Your task to perform on an android device: make emails show in primary in the gmail app Image 0: 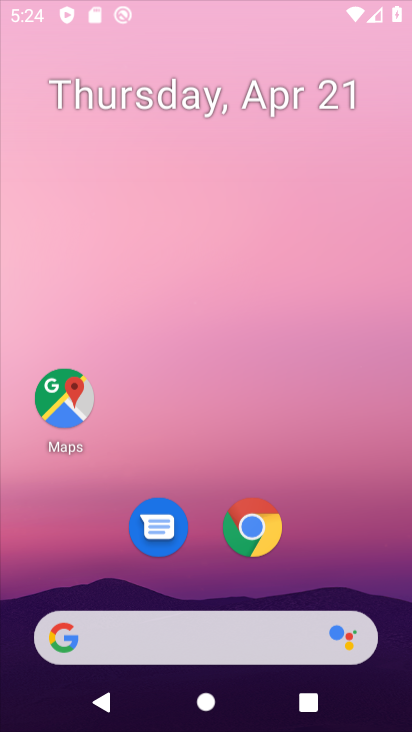
Step 0: click (294, 74)
Your task to perform on an android device: make emails show in primary in the gmail app Image 1: 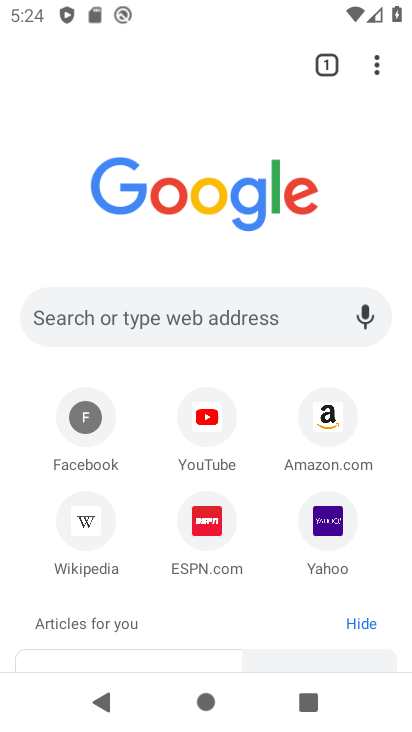
Step 1: press back button
Your task to perform on an android device: make emails show in primary in the gmail app Image 2: 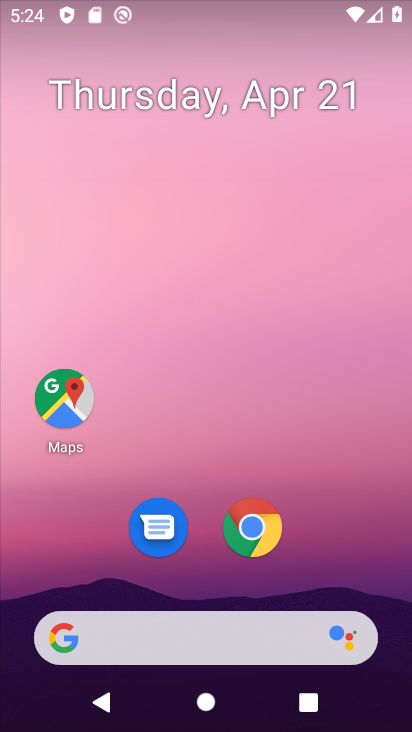
Step 2: drag from (198, 572) to (278, 89)
Your task to perform on an android device: make emails show in primary in the gmail app Image 3: 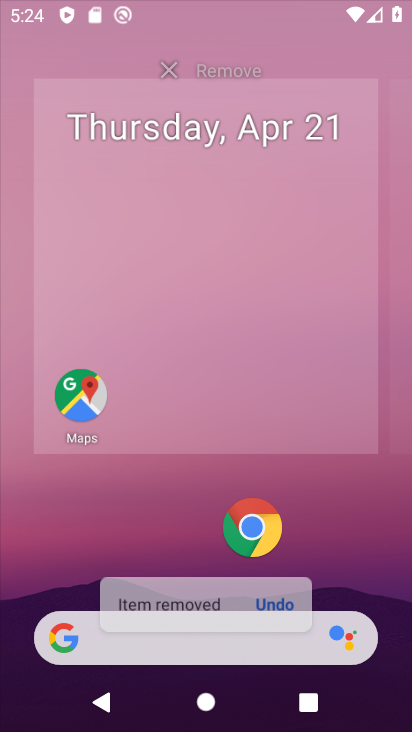
Step 3: click (104, 546)
Your task to perform on an android device: make emails show in primary in the gmail app Image 4: 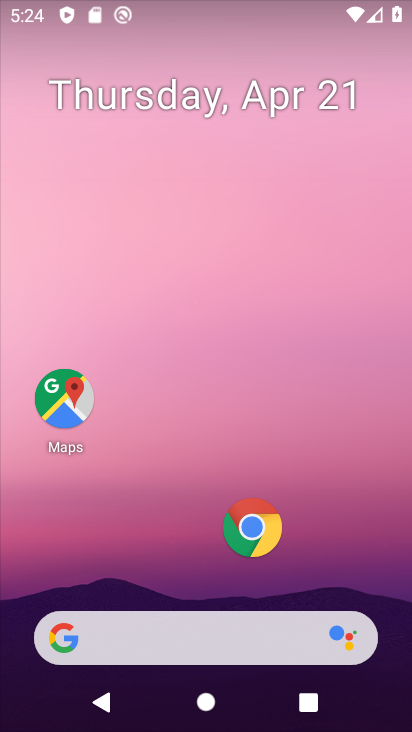
Step 4: drag from (175, 351) to (206, 104)
Your task to perform on an android device: make emails show in primary in the gmail app Image 5: 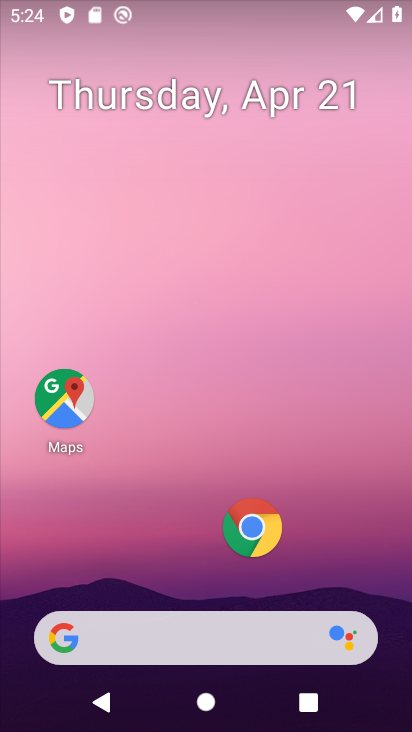
Step 5: drag from (190, 397) to (229, 134)
Your task to perform on an android device: make emails show in primary in the gmail app Image 6: 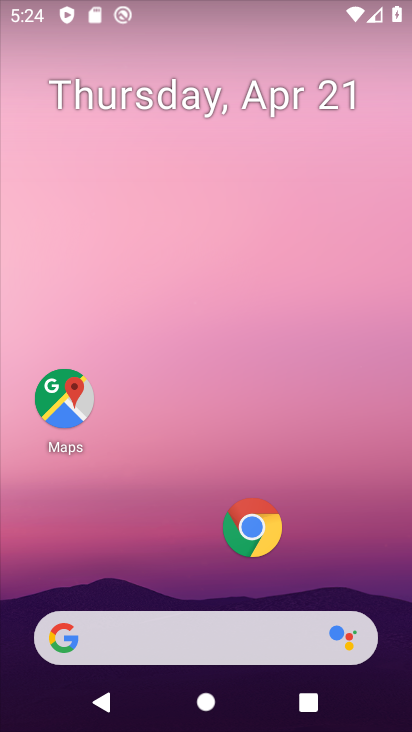
Step 6: drag from (130, 619) to (270, 26)
Your task to perform on an android device: make emails show in primary in the gmail app Image 7: 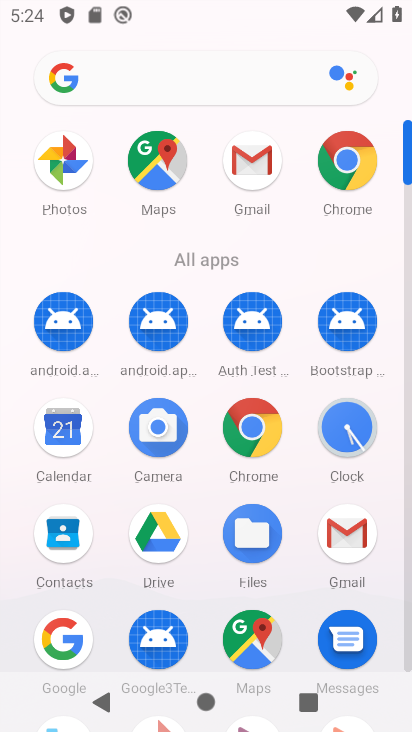
Step 7: click (259, 155)
Your task to perform on an android device: make emails show in primary in the gmail app Image 8: 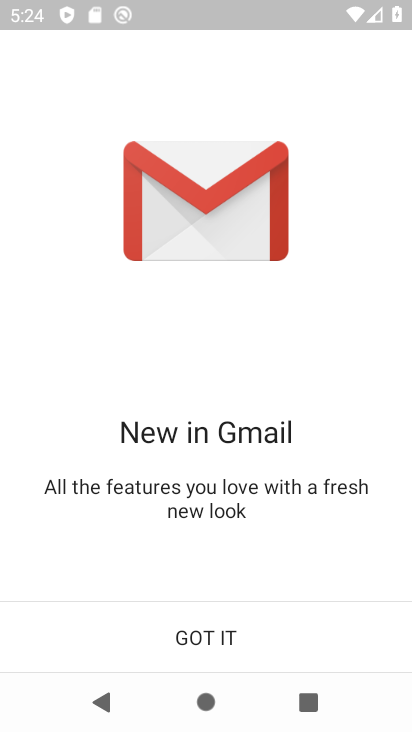
Step 8: click (187, 628)
Your task to perform on an android device: make emails show in primary in the gmail app Image 9: 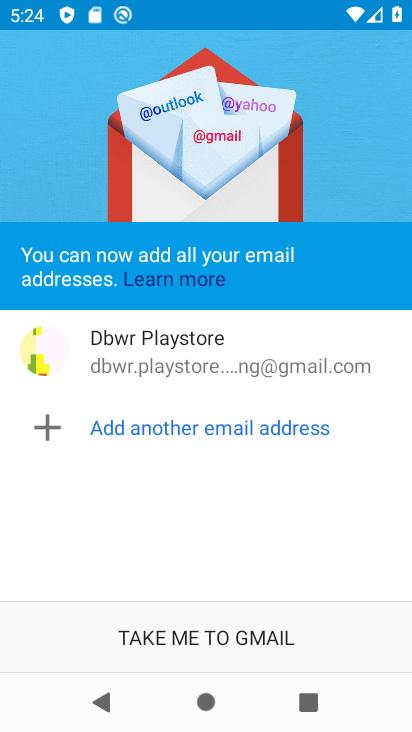
Step 9: click (177, 631)
Your task to perform on an android device: make emails show in primary in the gmail app Image 10: 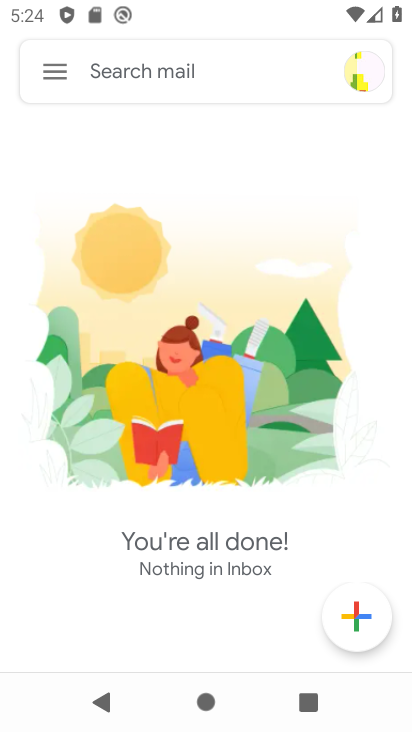
Step 10: click (57, 68)
Your task to perform on an android device: make emails show in primary in the gmail app Image 11: 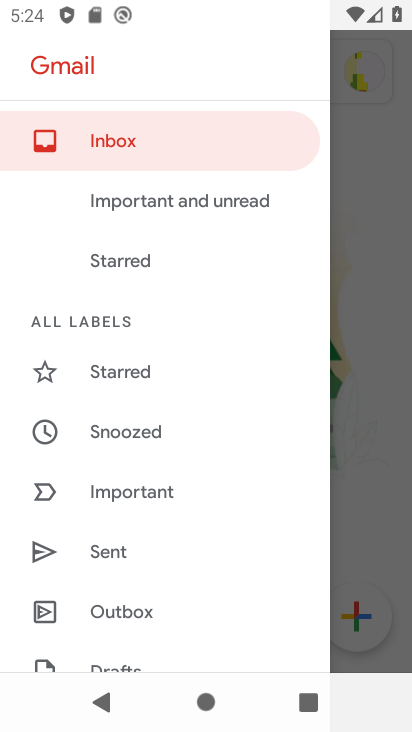
Step 11: drag from (176, 485) to (252, 0)
Your task to perform on an android device: make emails show in primary in the gmail app Image 12: 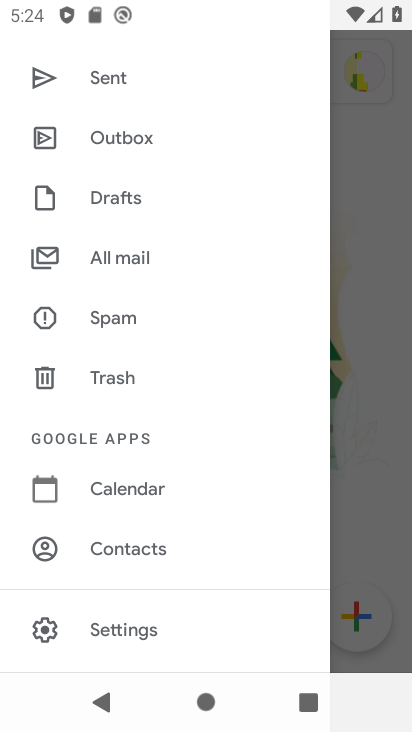
Step 12: click (131, 632)
Your task to perform on an android device: make emails show in primary in the gmail app Image 13: 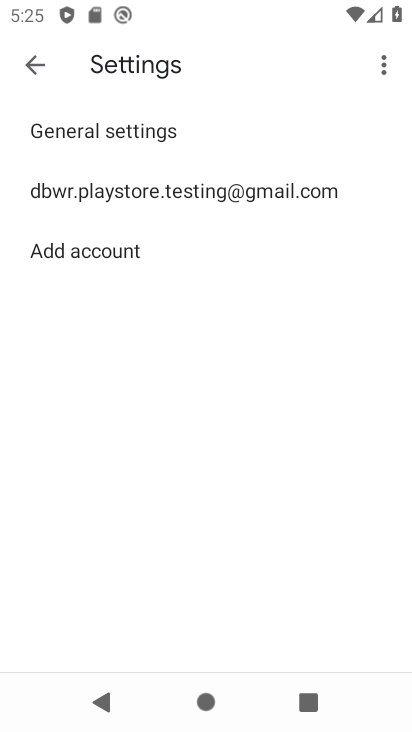
Step 13: click (137, 188)
Your task to perform on an android device: make emails show in primary in the gmail app Image 14: 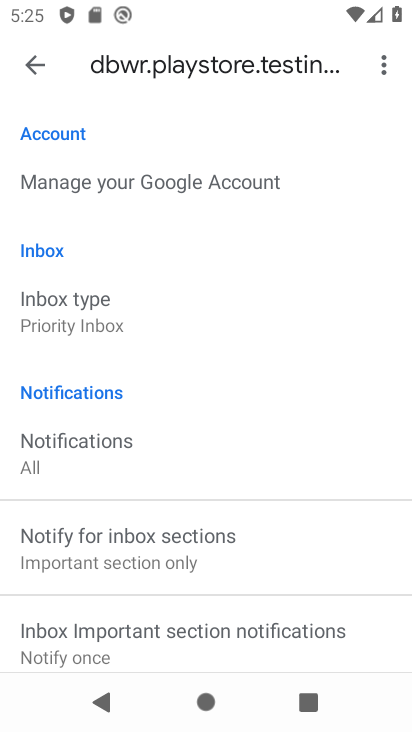
Step 14: task complete